Your task to perform on an android device: Open display settings Image 0: 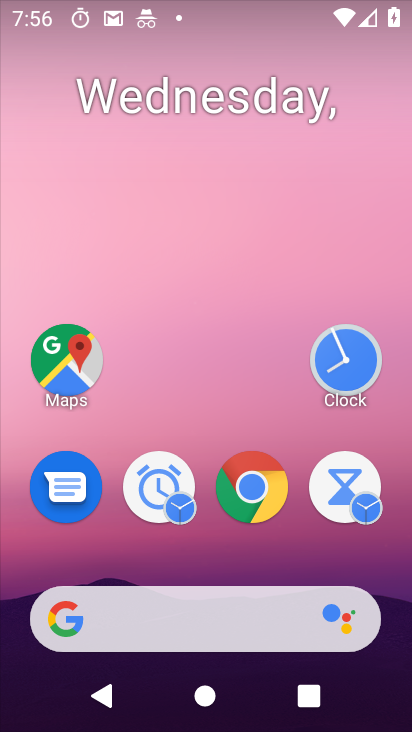
Step 0: drag from (189, 563) to (217, 3)
Your task to perform on an android device: Open display settings Image 1: 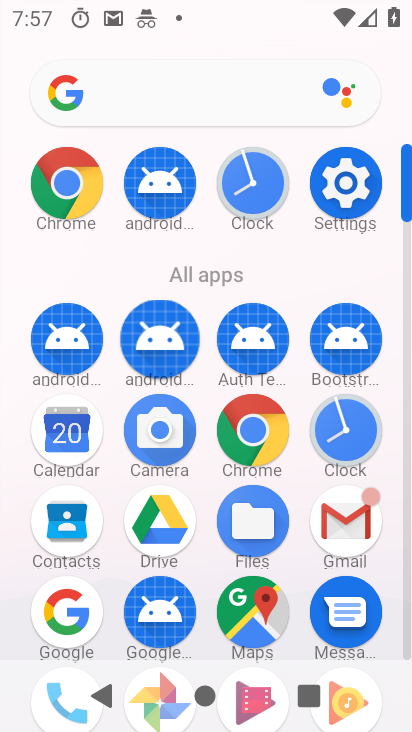
Step 1: drag from (295, 648) to (240, 197)
Your task to perform on an android device: Open display settings Image 2: 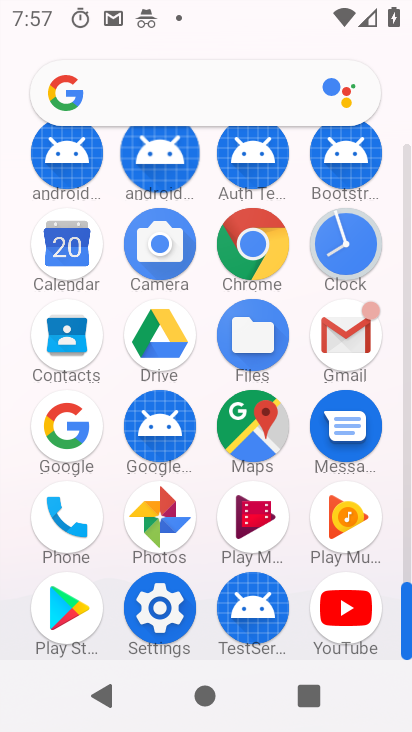
Step 2: click (167, 614)
Your task to perform on an android device: Open display settings Image 3: 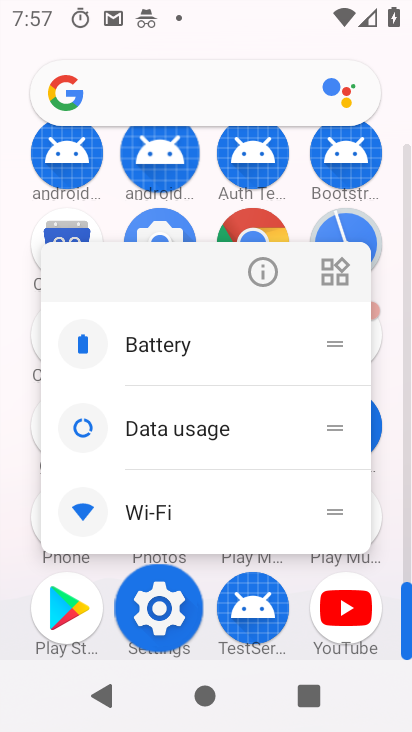
Step 3: click (162, 610)
Your task to perform on an android device: Open display settings Image 4: 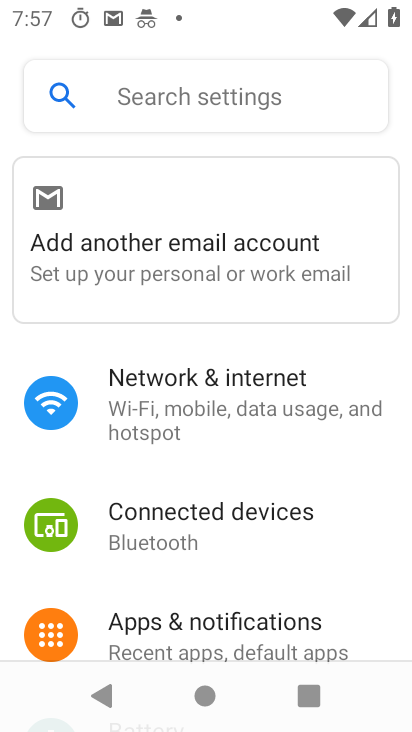
Step 4: click (159, 610)
Your task to perform on an android device: Open display settings Image 5: 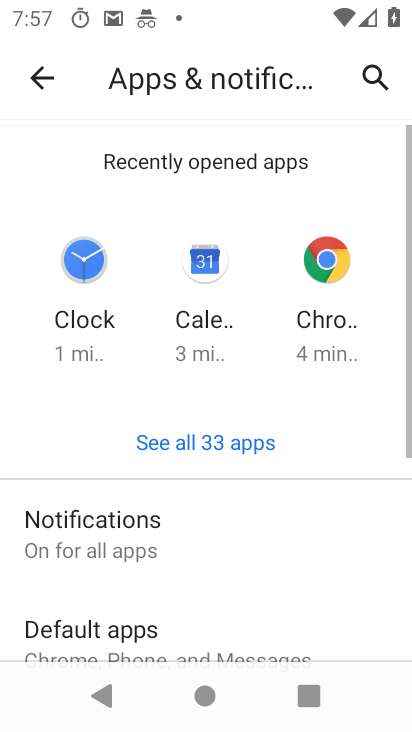
Step 5: click (186, 260)
Your task to perform on an android device: Open display settings Image 6: 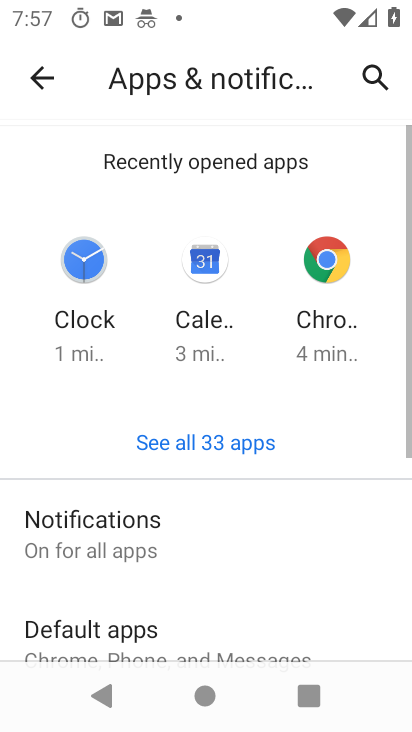
Step 6: drag from (249, 588) to (242, 373)
Your task to perform on an android device: Open display settings Image 7: 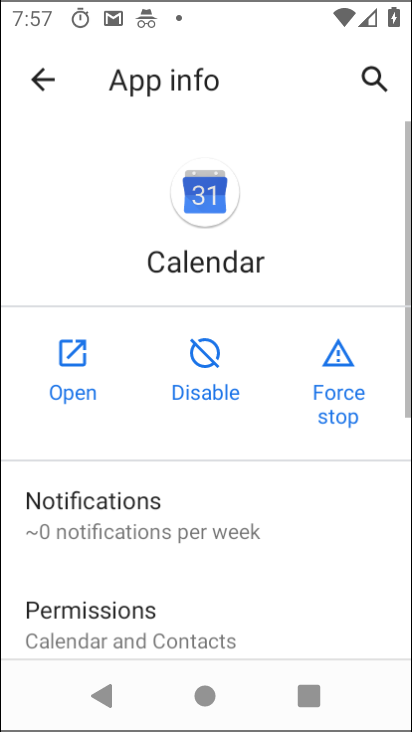
Step 7: drag from (228, 612) to (266, 358)
Your task to perform on an android device: Open display settings Image 8: 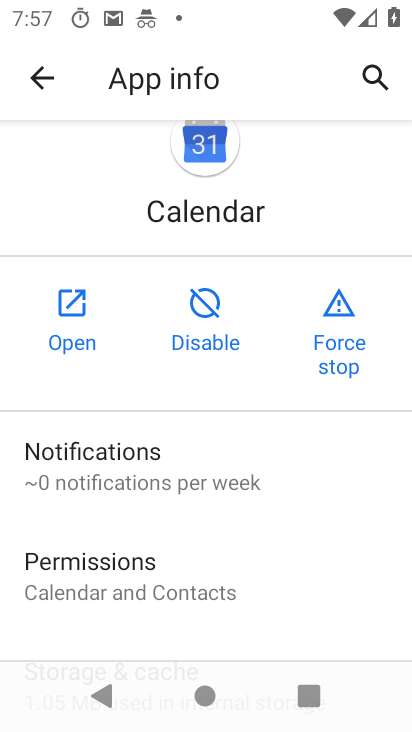
Step 8: click (34, 70)
Your task to perform on an android device: Open display settings Image 9: 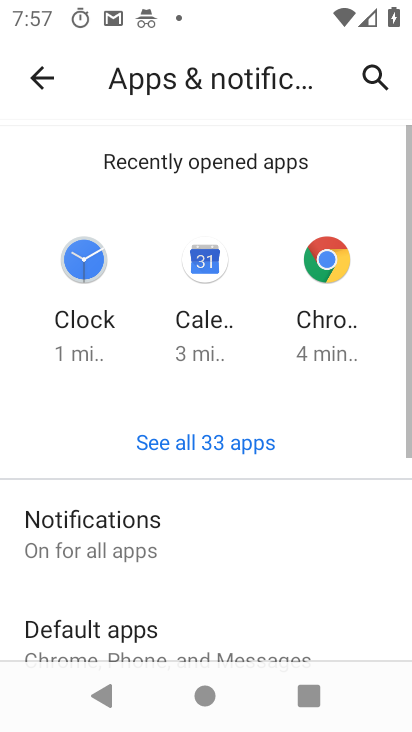
Step 9: click (34, 81)
Your task to perform on an android device: Open display settings Image 10: 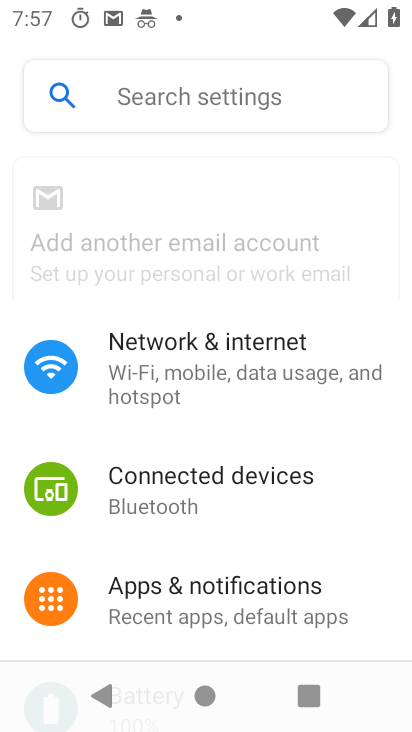
Step 10: drag from (151, 461) to (133, 302)
Your task to perform on an android device: Open display settings Image 11: 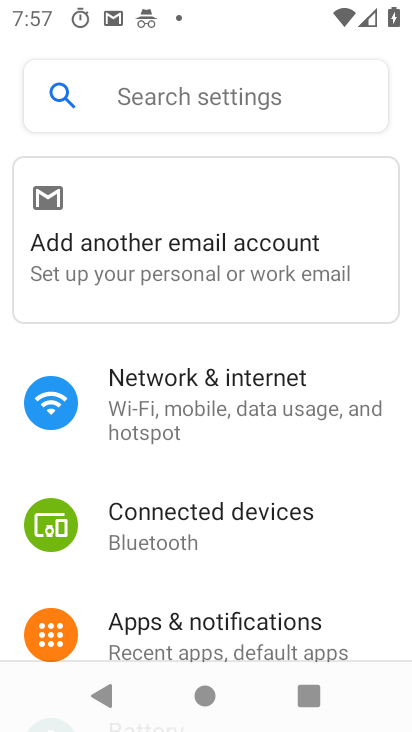
Step 11: drag from (155, 565) to (159, 167)
Your task to perform on an android device: Open display settings Image 12: 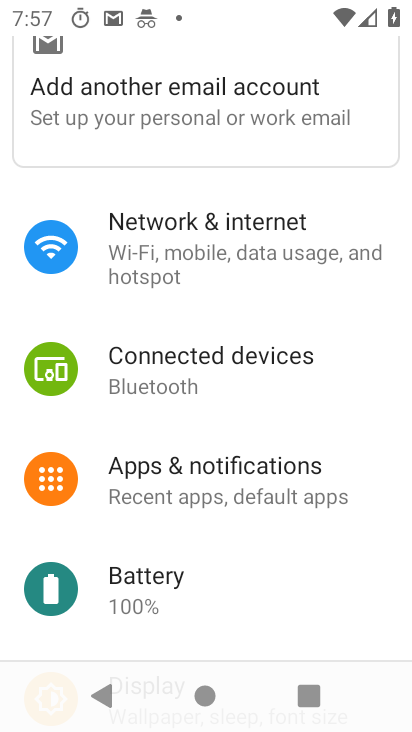
Step 12: drag from (248, 453) to (178, 398)
Your task to perform on an android device: Open display settings Image 13: 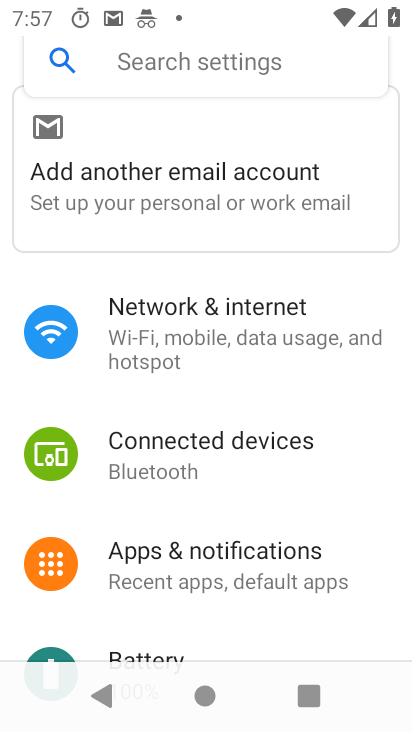
Step 13: drag from (218, 321) to (112, 377)
Your task to perform on an android device: Open display settings Image 14: 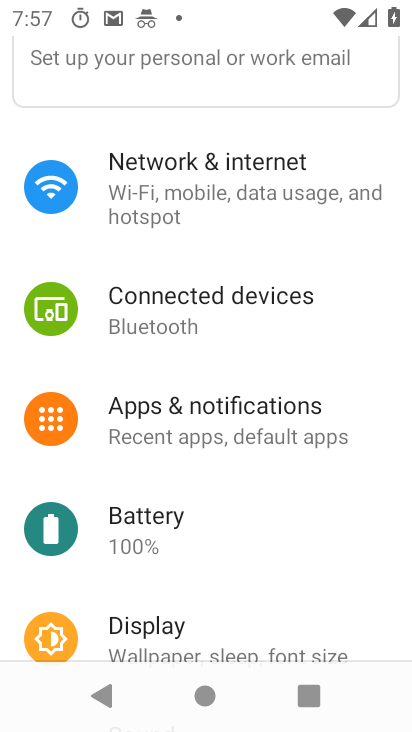
Step 14: drag from (258, 393) to (189, 330)
Your task to perform on an android device: Open display settings Image 15: 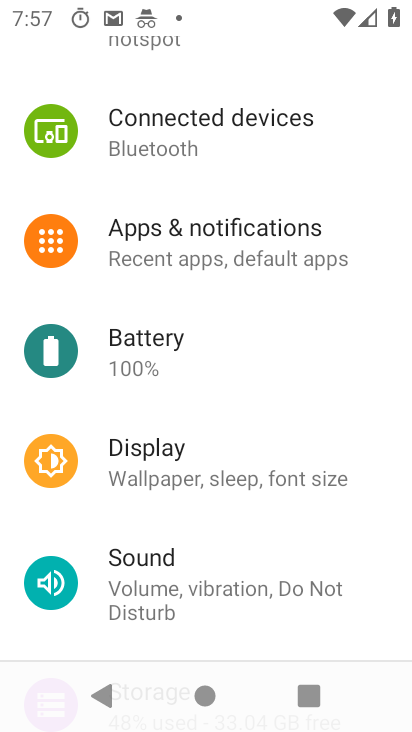
Step 15: drag from (191, 576) to (151, 311)
Your task to perform on an android device: Open display settings Image 16: 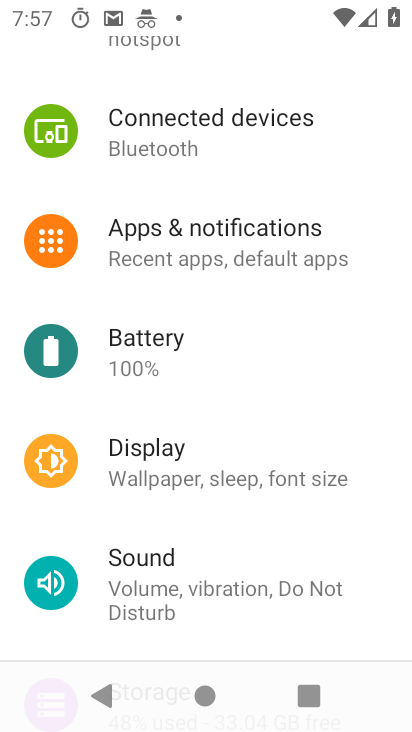
Step 16: drag from (249, 514) to (233, 199)
Your task to perform on an android device: Open display settings Image 17: 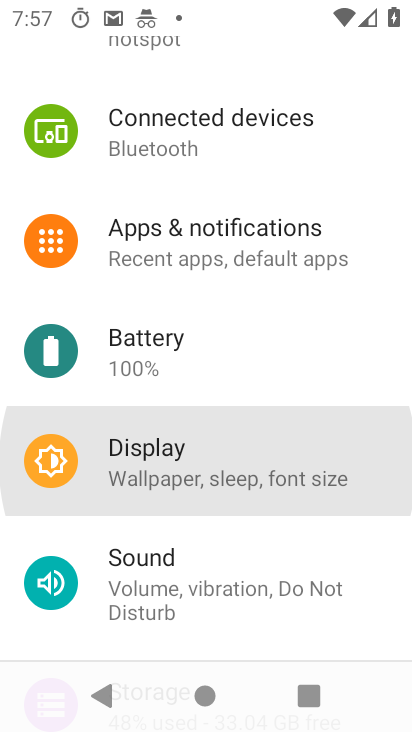
Step 17: click (165, 567)
Your task to perform on an android device: Open display settings Image 18: 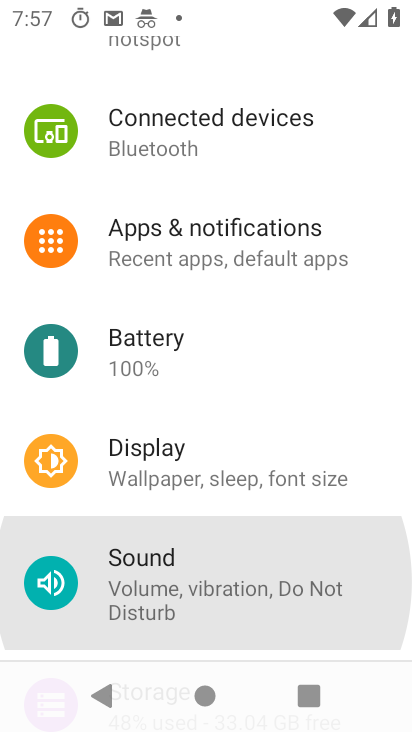
Step 18: drag from (165, 567) to (136, 457)
Your task to perform on an android device: Open display settings Image 19: 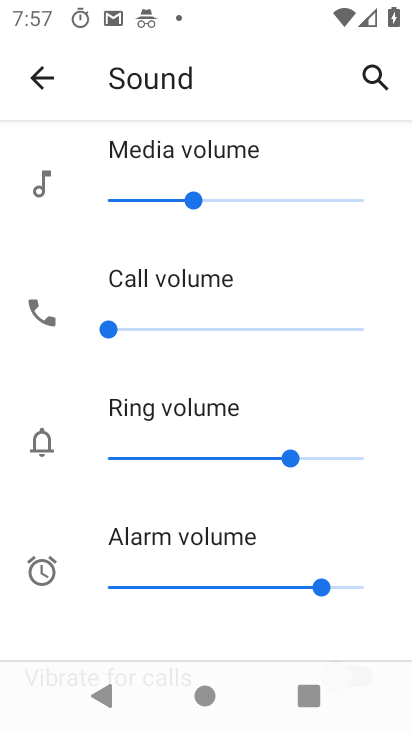
Step 19: click (32, 66)
Your task to perform on an android device: Open display settings Image 20: 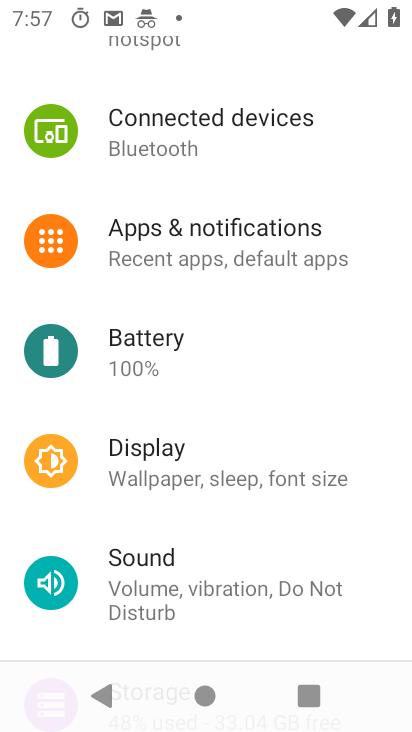
Step 20: click (34, 80)
Your task to perform on an android device: Open display settings Image 21: 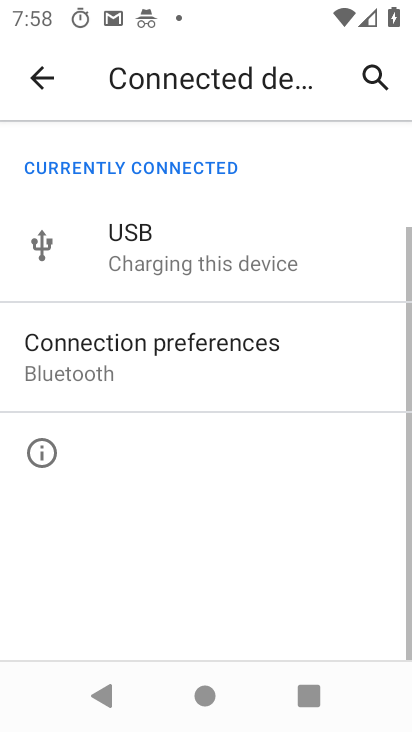
Step 21: click (142, 376)
Your task to perform on an android device: Open display settings Image 22: 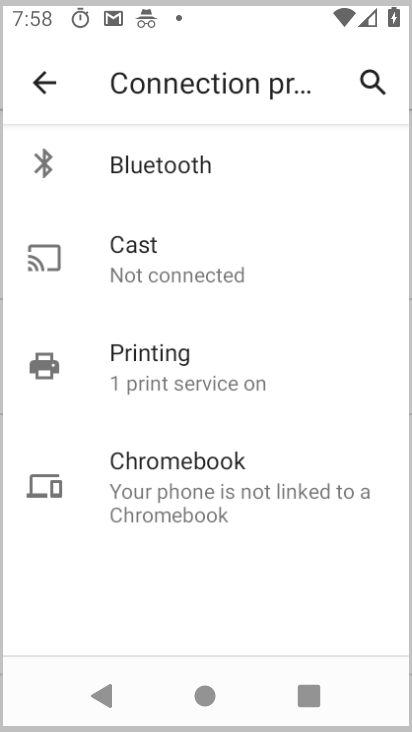
Step 22: click (37, 82)
Your task to perform on an android device: Open display settings Image 23: 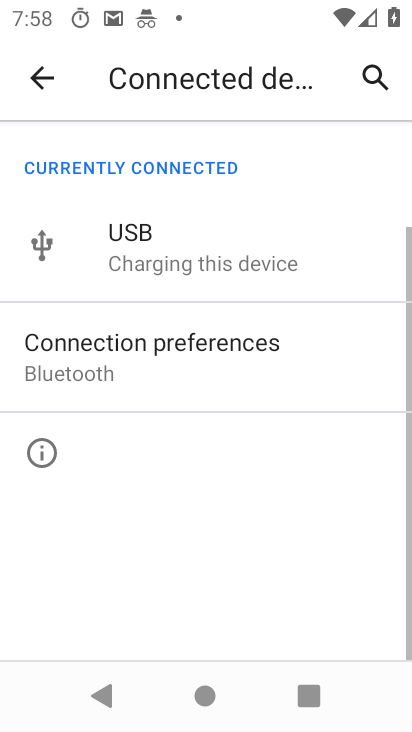
Step 23: click (42, 77)
Your task to perform on an android device: Open display settings Image 24: 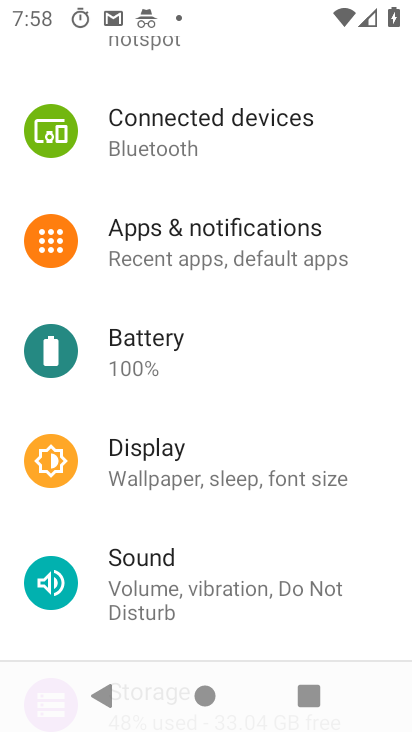
Step 24: click (153, 451)
Your task to perform on an android device: Open display settings Image 25: 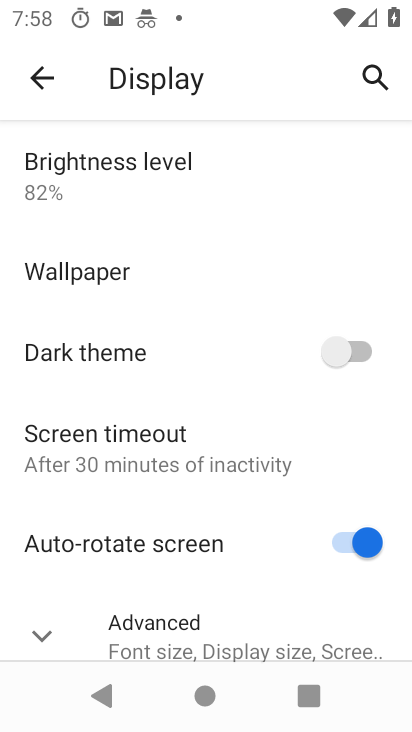
Step 25: click (157, 462)
Your task to perform on an android device: Open display settings Image 26: 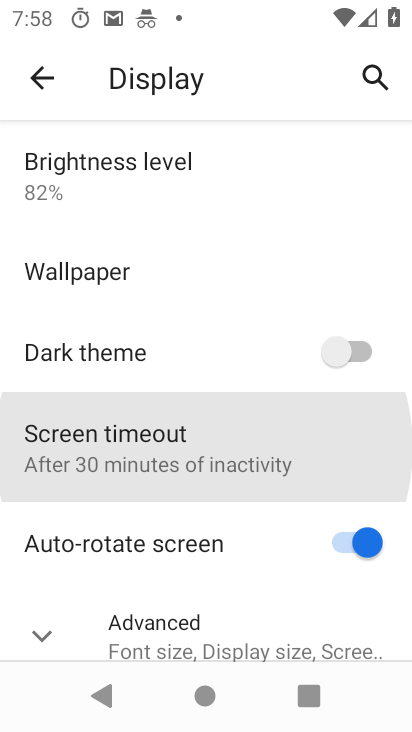
Step 26: click (157, 462)
Your task to perform on an android device: Open display settings Image 27: 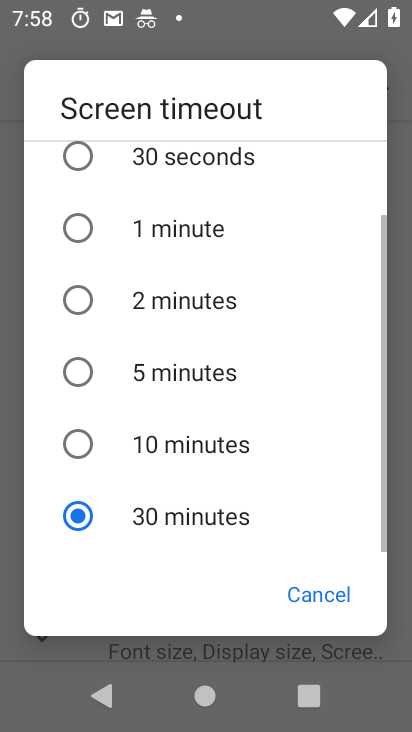
Step 27: click (157, 462)
Your task to perform on an android device: Open display settings Image 28: 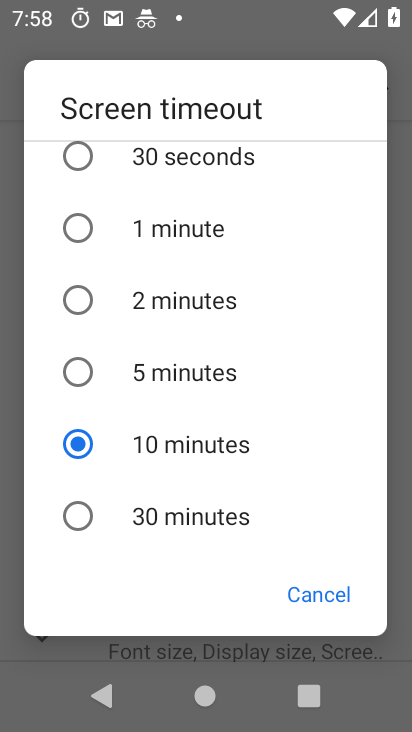
Step 28: click (307, 590)
Your task to perform on an android device: Open display settings Image 29: 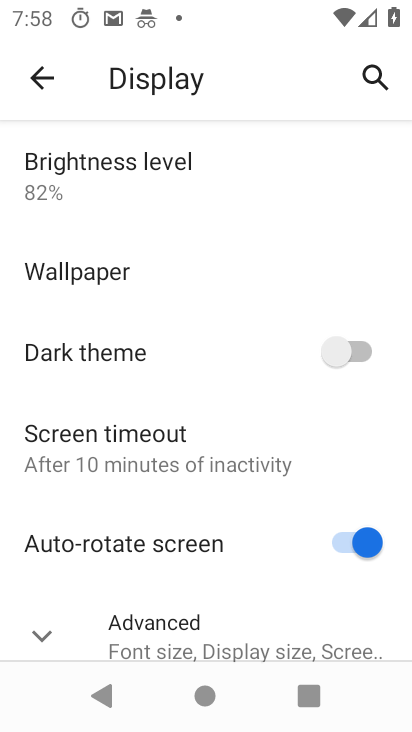
Step 29: task complete